Your task to perform on an android device: see sites visited before in the chrome app Image 0: 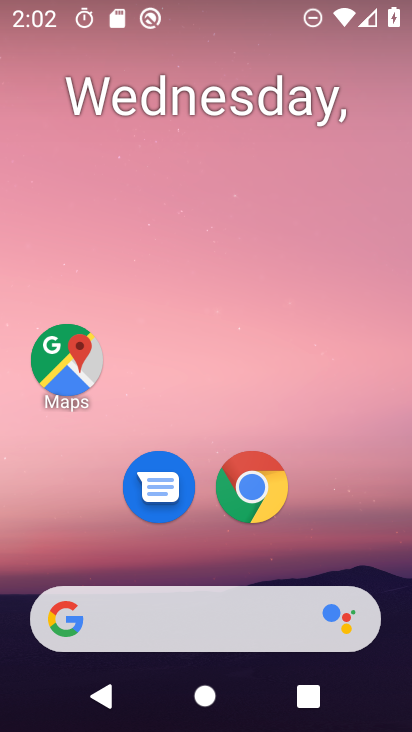
Step 0: click (241, 492)
Your task to perform on an android device: see sites visited before in the chrome app Image 1: 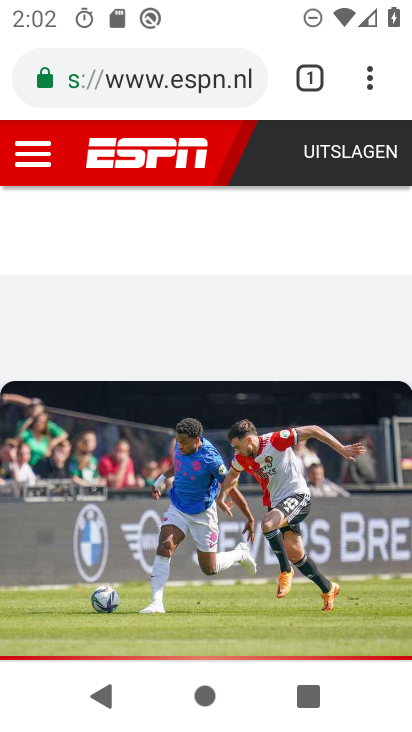
Step 1: task complete